Your task to perform on an android device: check battery use Image 0: 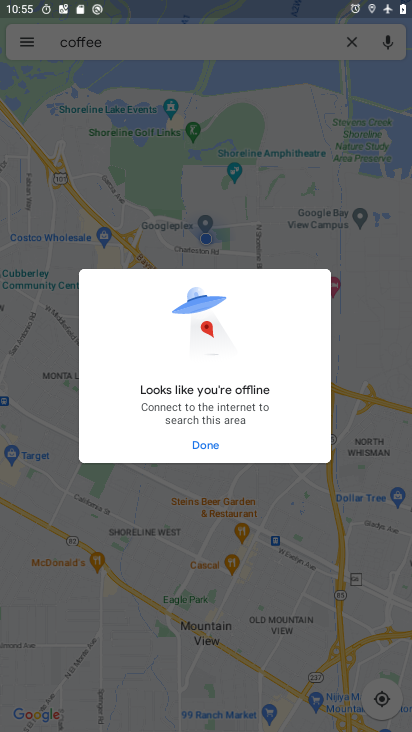
Step 0: press home button
Your task to perform on an android device: check battery use Image 1: 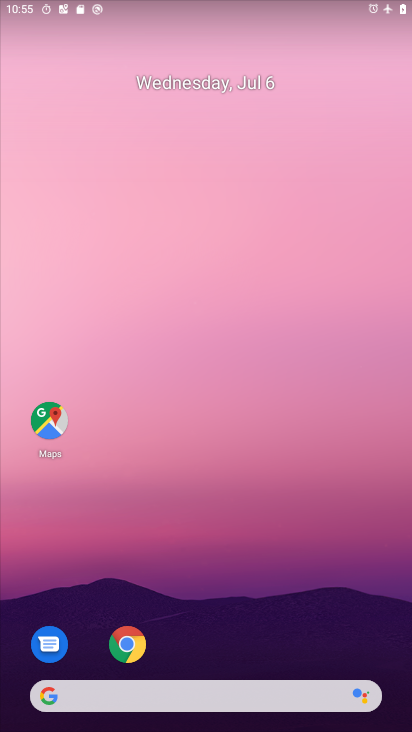
Step 1: drag from (236, 637) to (298, 175)
Your task to perform on an android device: check battery use Image 2: 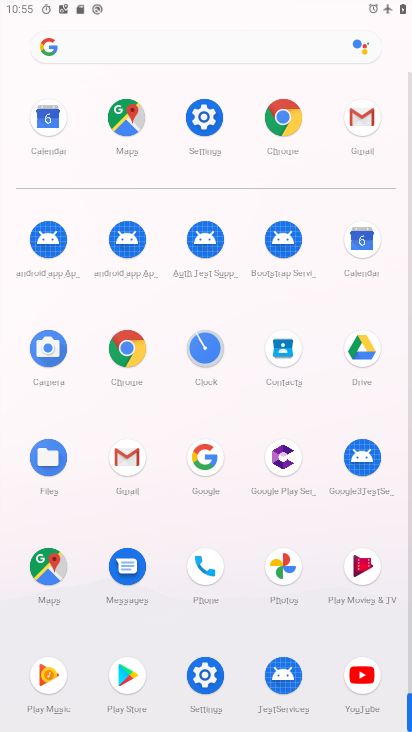
Step 2: click (210, 135)
Your task to perform on an android device: check battery use Image 3: 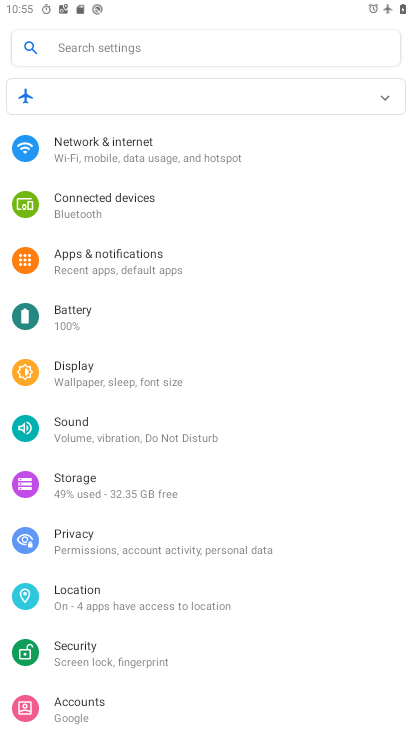
Step 3: click (98, 321)
Your task to perform on an android device: check battery use Image 4: 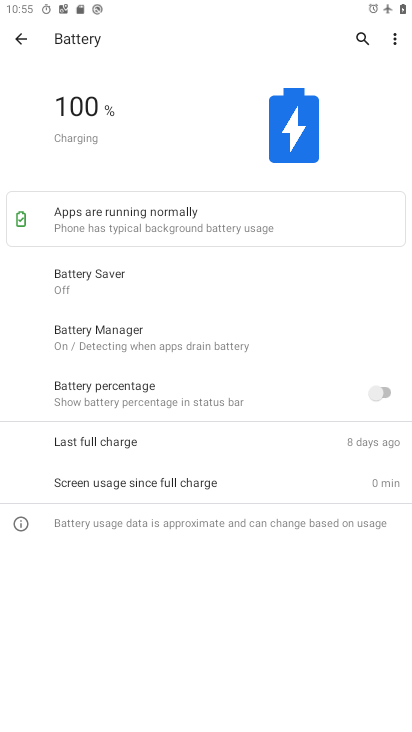
Step 4: task complete